Your task to perform on an android device: read, delete, or share a saved page in the chrome app Image 0: 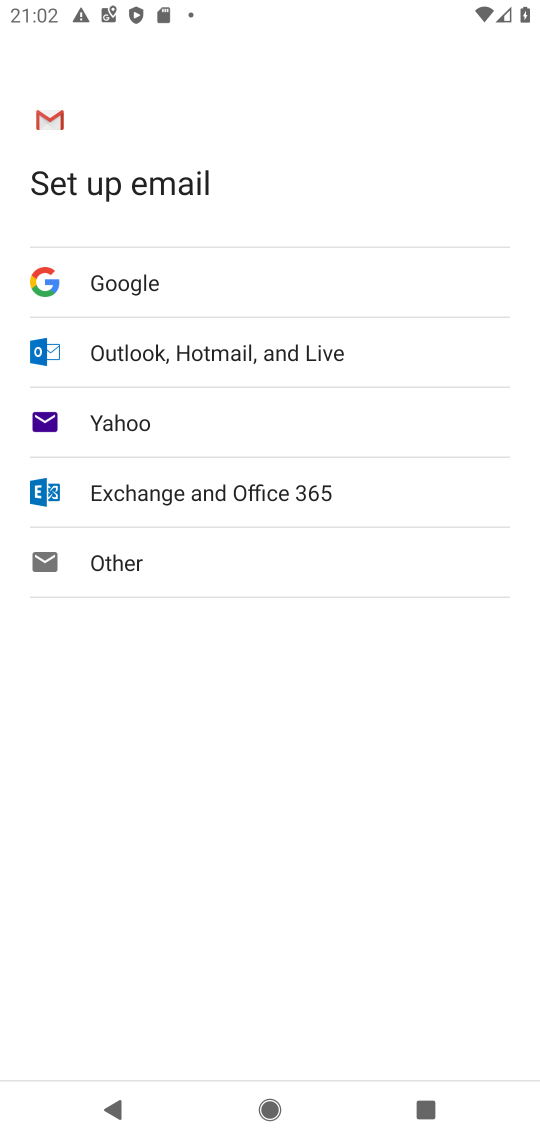
Step 0: press home button
Your task to perform on an android device: read, delete, or share a saved page in the chrome app Image 1: 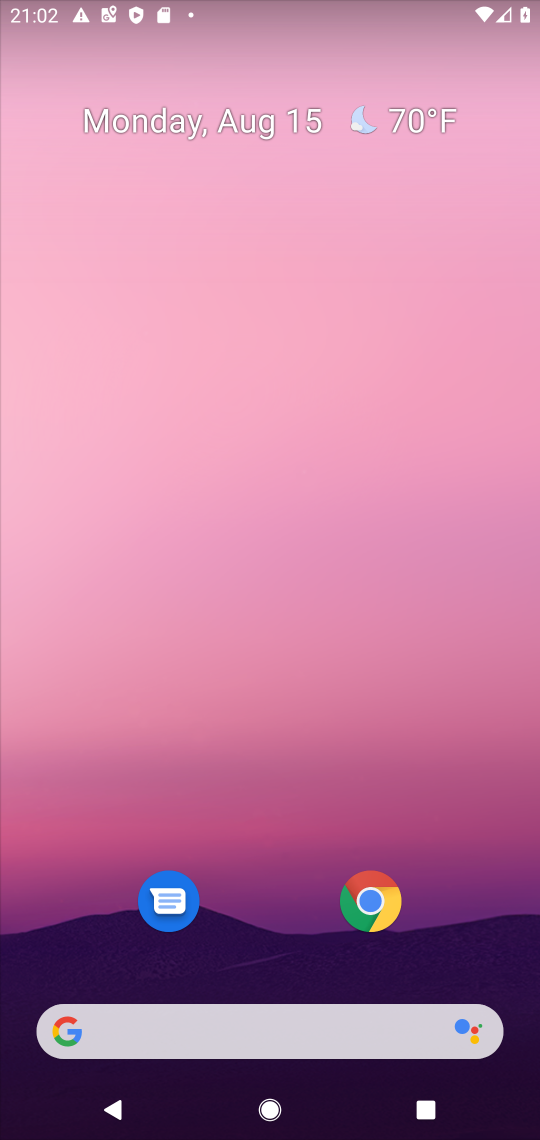
Step 1: click (372, 900)
Your task to perform on an android device: read, delete, or share a saved page in the chrome app Image 2: 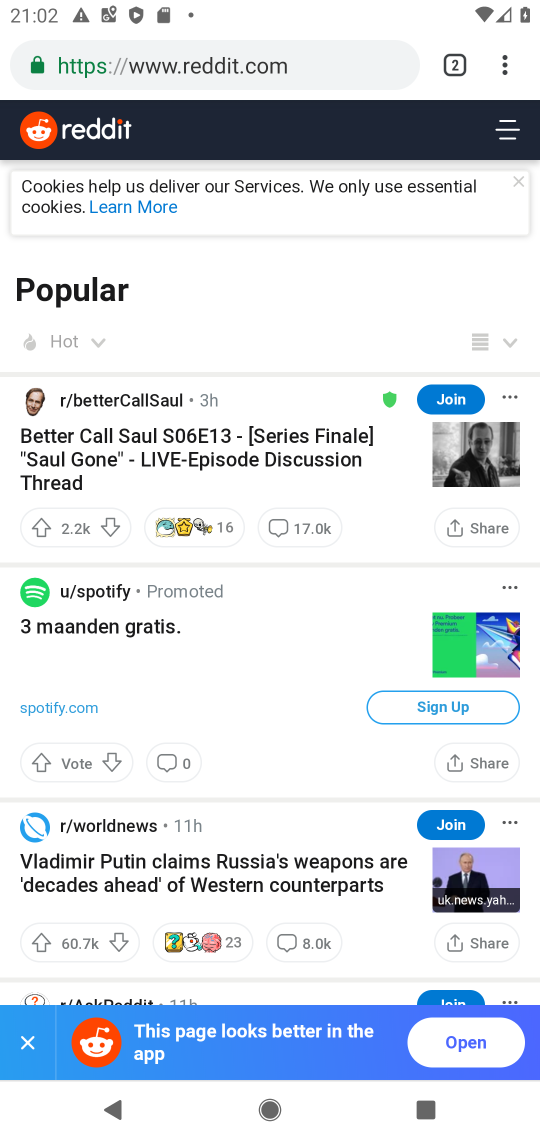
Step 2: click (508, 76)
Your task to perform on an android device: read, delete, or share a saved page in the chrome app Image 3: 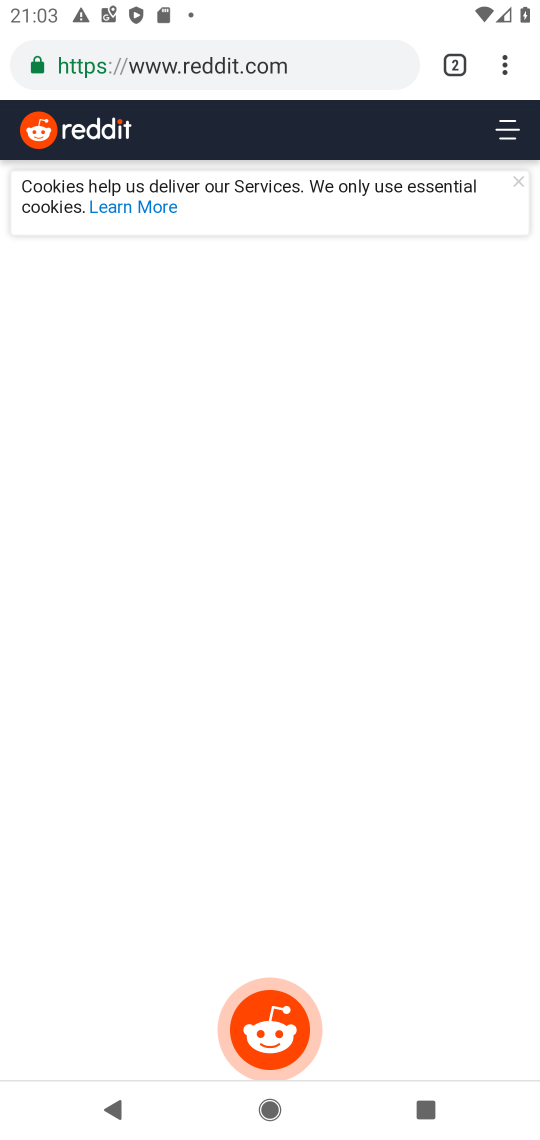
Step 3: click (496, 59)
Your task to perform on an android device: read, delete, or share a saved page in the chrome app Image 4: 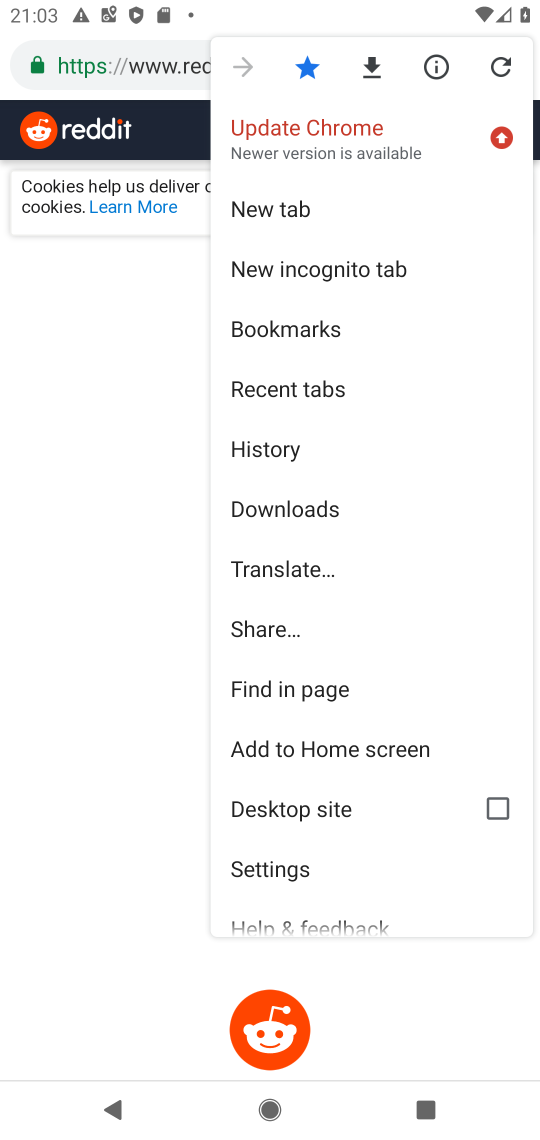
Step 4: click (294, 508)
Your task to perform on an android device: read, delete, or share a saved page in the chrome app Image 5: 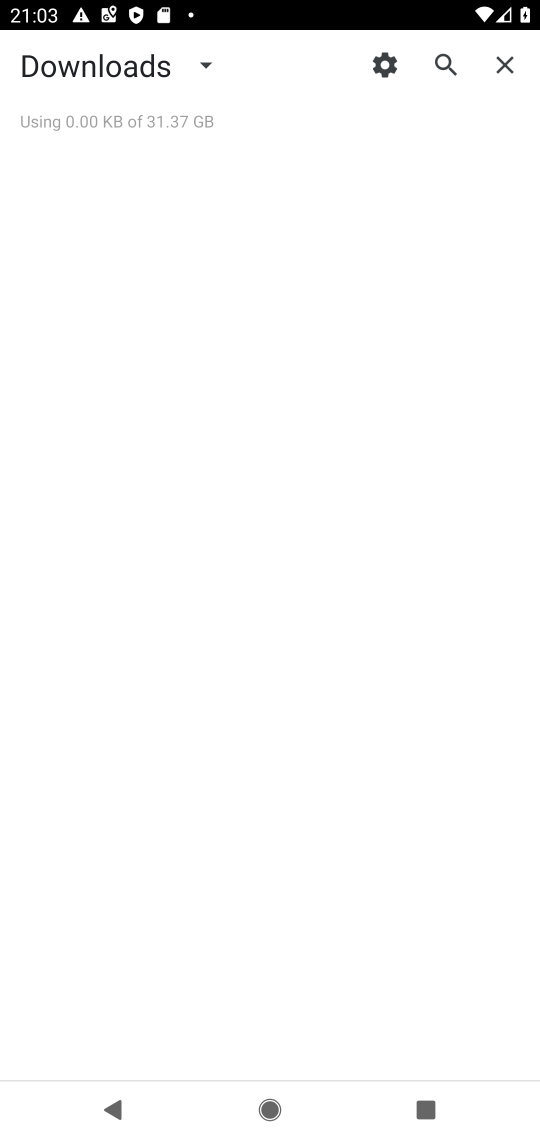
Step 5: task complete